Your task to perform on an android device: Clear all items from cart on bestbuy.com. Image 0: 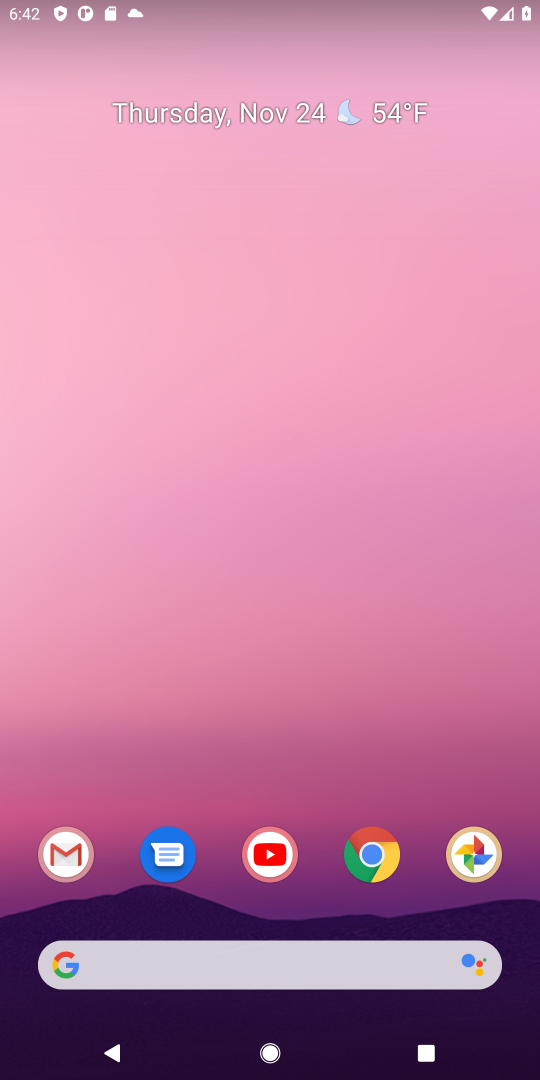
Step 0: click (372, 854)
Your task to perform on an android device: Clear all items from cart on bestbuy.com. Image 1: 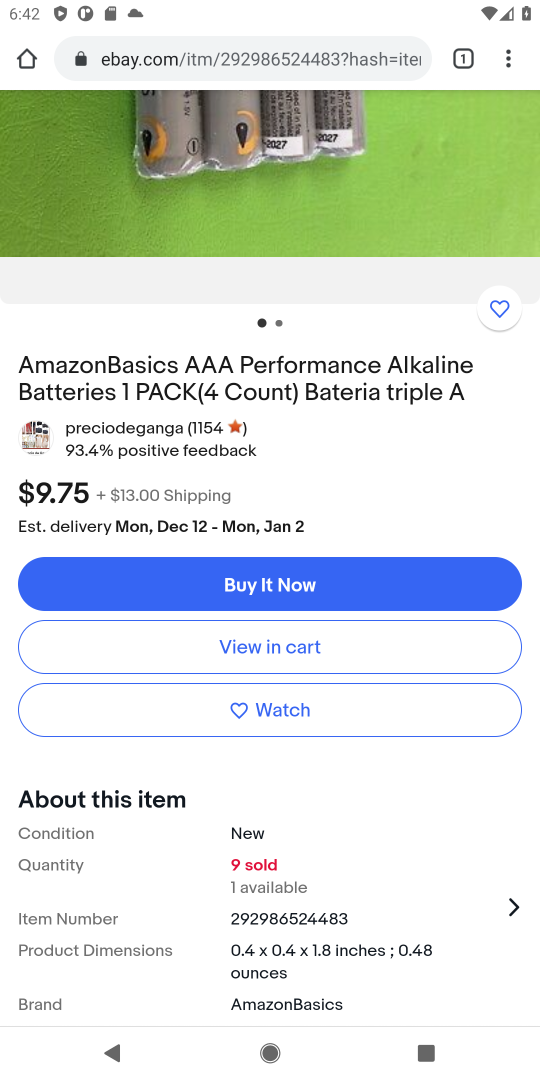
Step 1: click (201, 66)
Your task to perform on an android device: Clear all items from cart on bestbuy.com. Image 2: 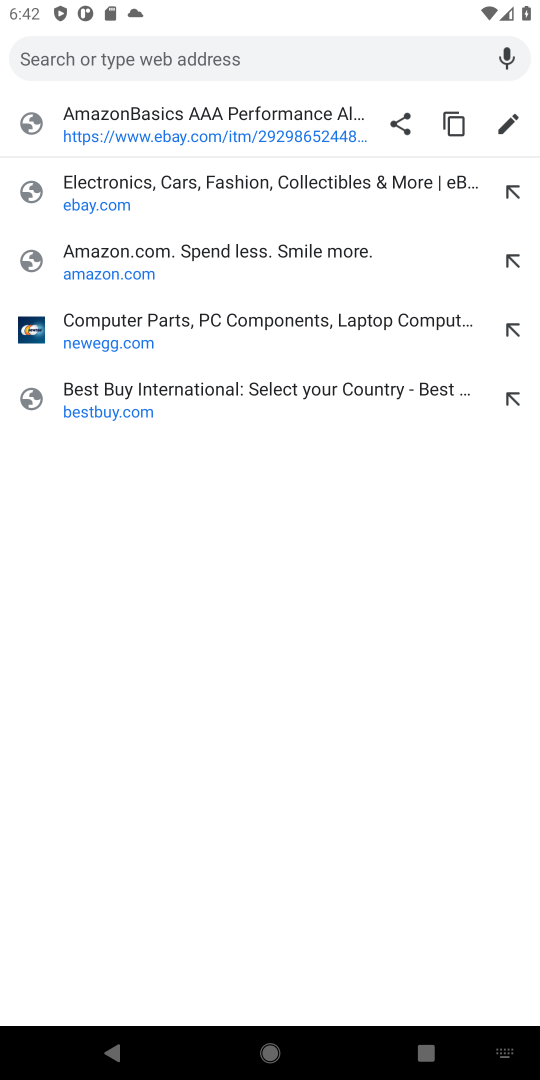
Step 2: click (100, 390)
Your task to perform on an android device: Clear all items from cart on bestbuy.com. Image 3: 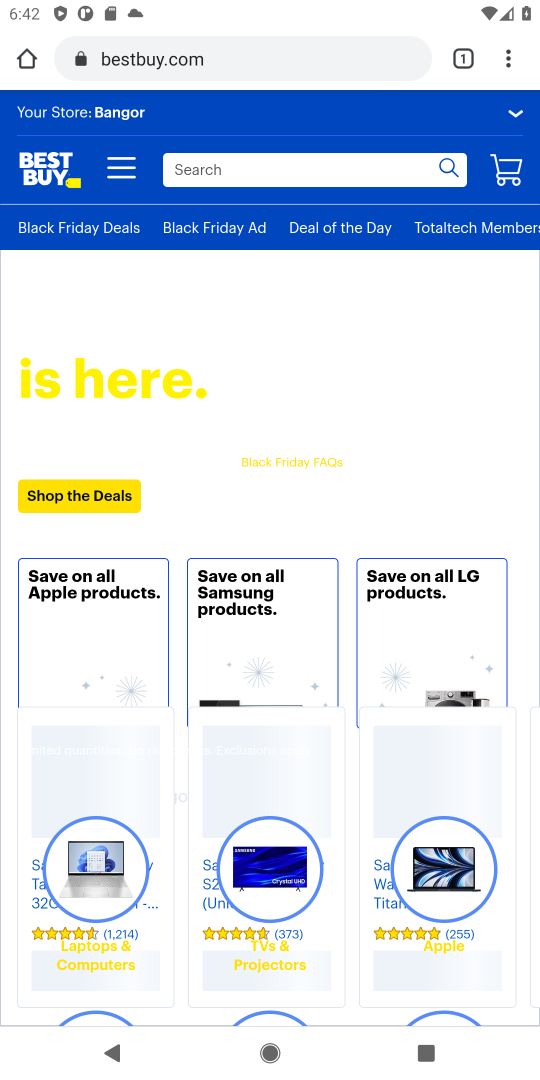
Step 3: click (510, 178)
Your task to perform on an android device: Clear all items from cart on bestbuy.com. Image 4: 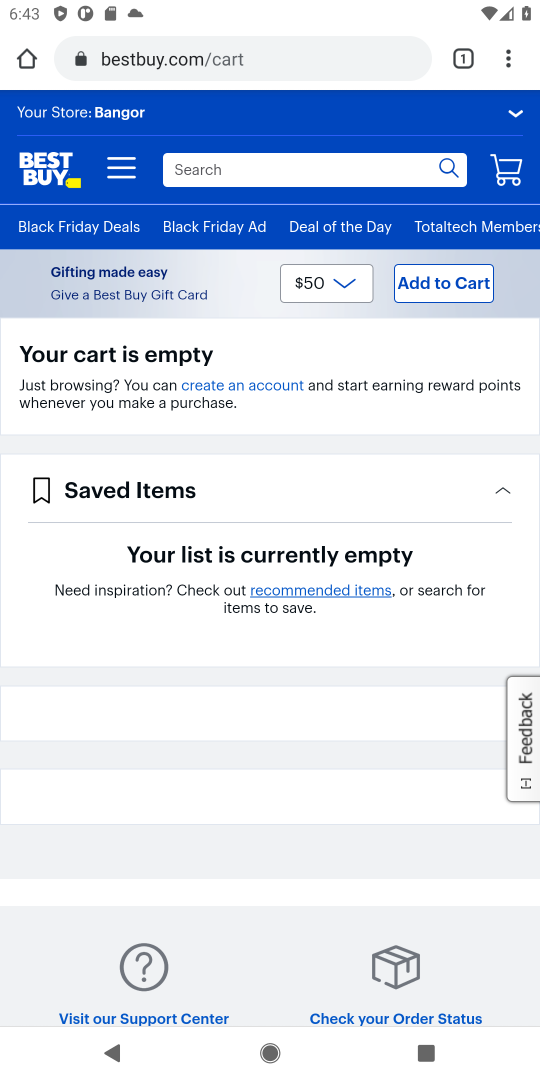
Step 4: task complete